Your task to perform on an android device: Is it going to rain tomorrow? Image 0: 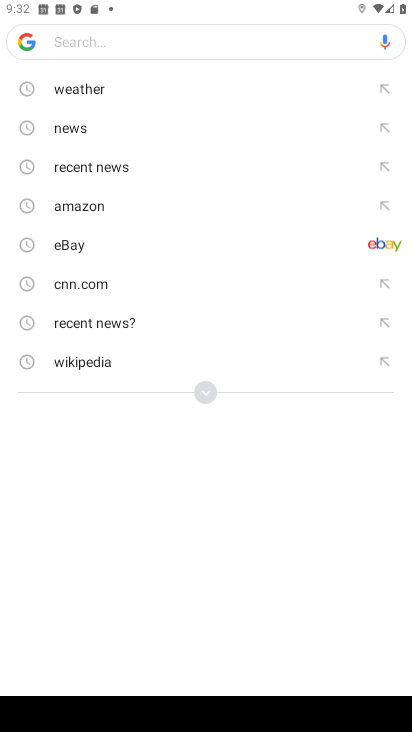
Step 0: press home button
Your task to perform on an android device: Is it going to rain tomorrow? Image 1: 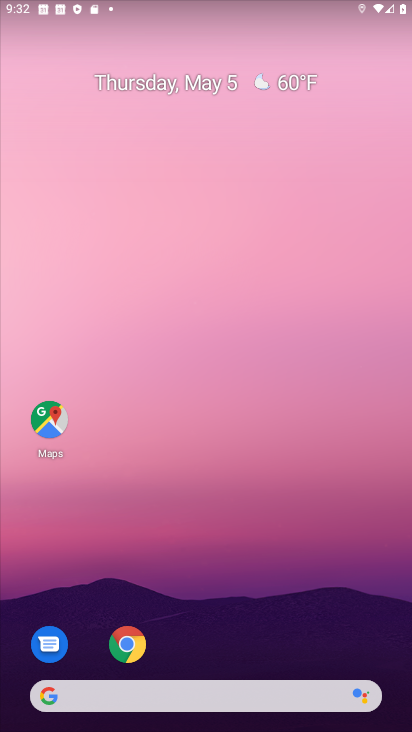
Step 1: drag from (203, 632) to (200, 161)
Your task to perform on an android device: Is it going to rain tomorrow? Image 2: 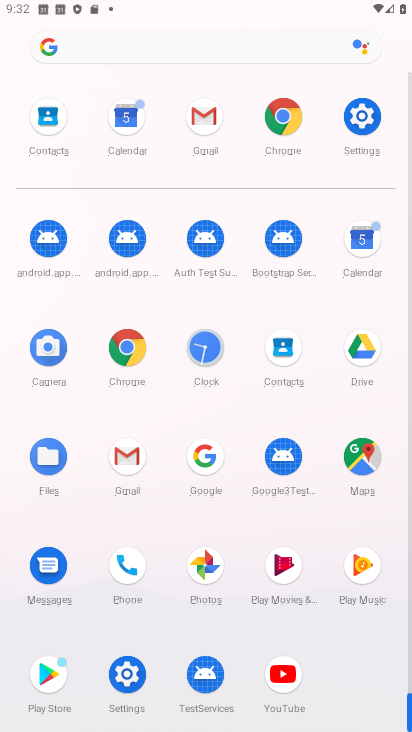
Step 2: click (134, 46)
Your task to perform on an android device: Is it going to rain tomorrow? Image 3: 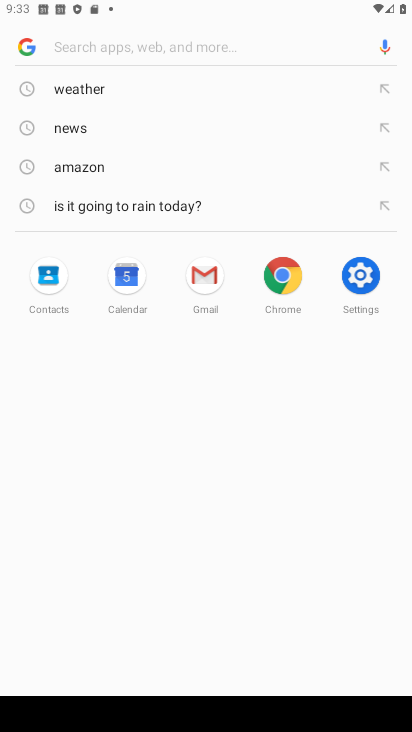
Step 3: click (128, 50)
Your task to perform on an android device: Is it going to rain tomorrow? Image 4: 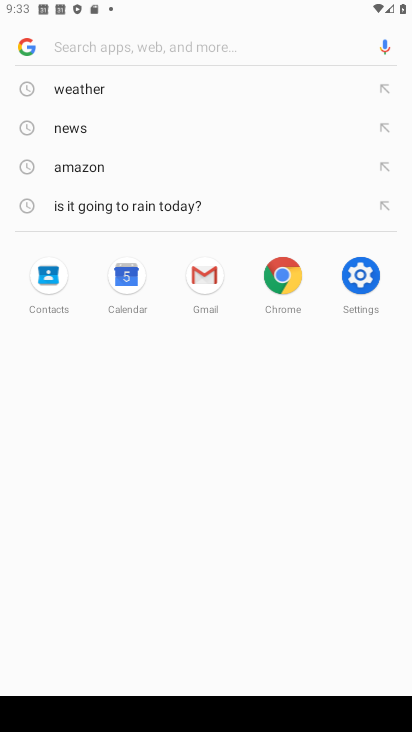
Step 4: type "rain tomorrow"
Your task to perform on an android device: Is it going to rain tomorrow? Image 5: 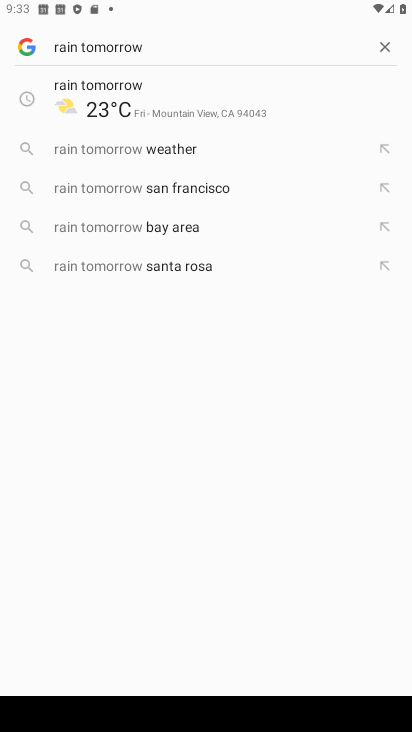
Step 5: click (171, 107)
Your task to perform on an android device: Is it going to rain tomorrow? Image 6: 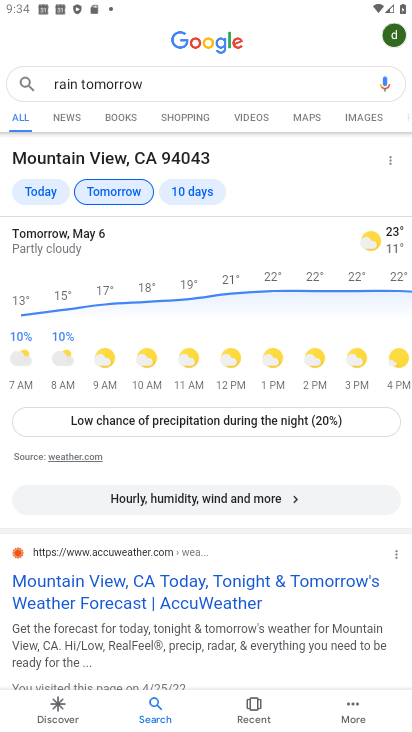
Step 6: task complete